Your task to perform on an android device: read, delete, or share a saved page in the chrome app Image 0: 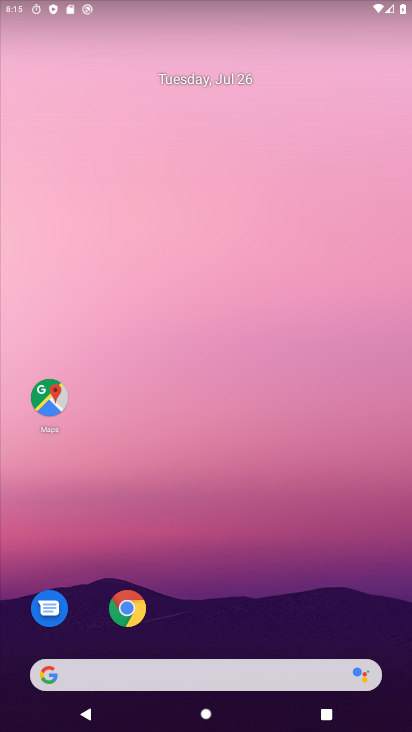
Step 0: drag from (214, 663) to (270, 119)
Your task to perform on an android device: read, delete, or share a saved page in the chrome app Image 1: 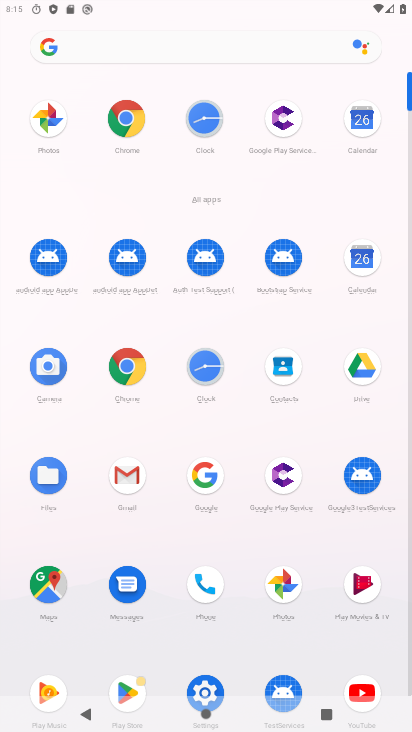
Step 1: click (135, 361)
Your task to perform on an android device: read, delete, or share a saved page in the chrome app Image 2: 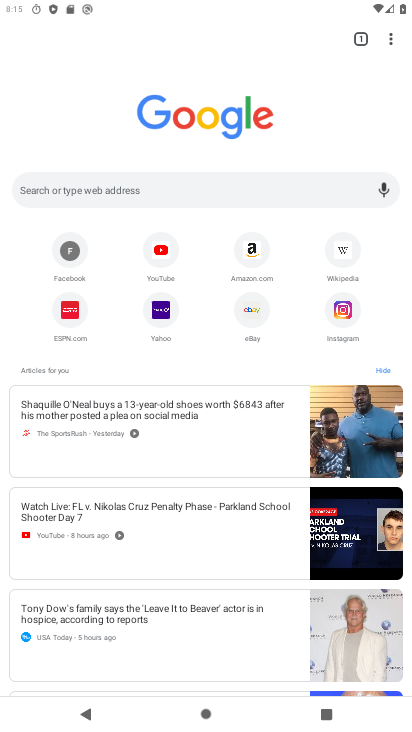
Step 2: click (393, 40)
Your task to perform on an android device: read, delete, or share a saved page in the chrome app Image 3: 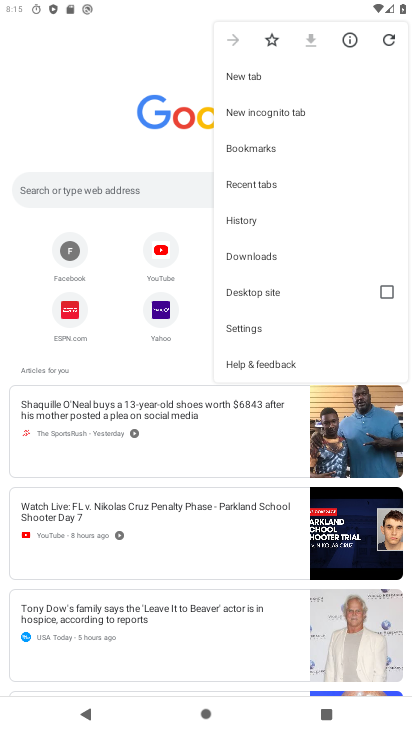
Step 3: click (251, 256)
Your task to perform on an android device: read, delete, or share a saved page in the chrome app Image 4: 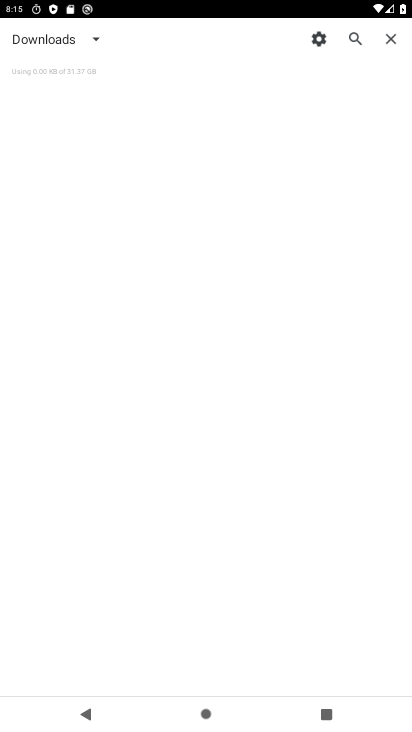
Step 4: task complete